Your task to perform on an android device: see tabs open on other devices in the chrome app Image 0: 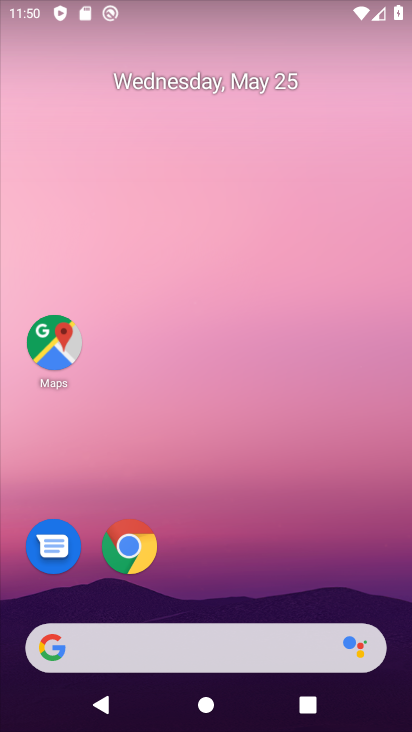
Step 0: click (120, 539)
Your task to perform on an android device: see tabs open on other devices in the chrome app Image 1: 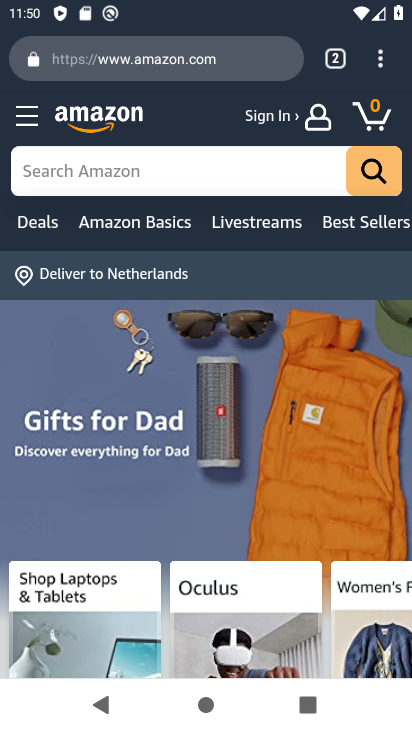
Step 1: click (389, 48)
Your task to perform on an android device: see tabs open on other devices in the chrome app Image 2: 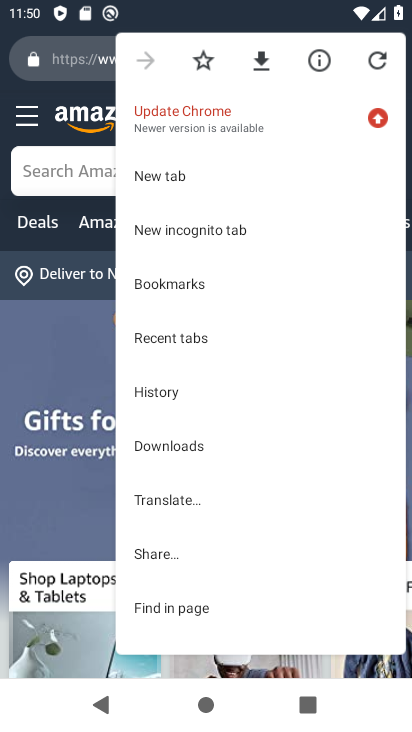
Step 2: click (186, 352)
Your task to perform on an android device: see tabs open on other devices in the chrome app Image 3: 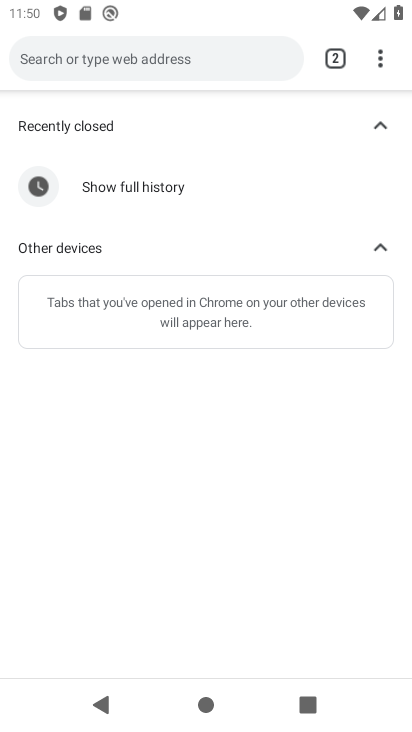
Step 3: task complete